Your task to perform on an android device: Go to settings Image 0: 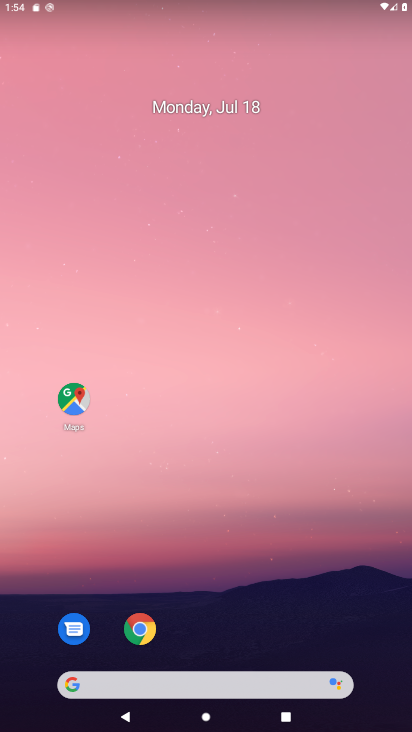
Step 0: drag from (189, 587) to (258, 0)
Your task to perform on an android device: Go to settings Image 1: 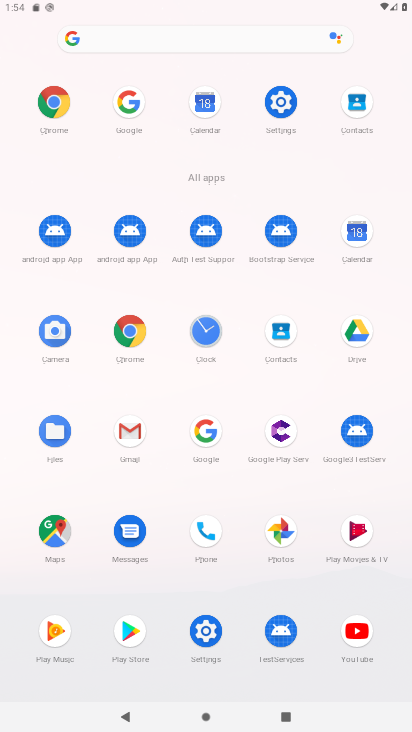
Step 1: click (282, 114)
Your task to perform on an android device: Go to settings Image 2: 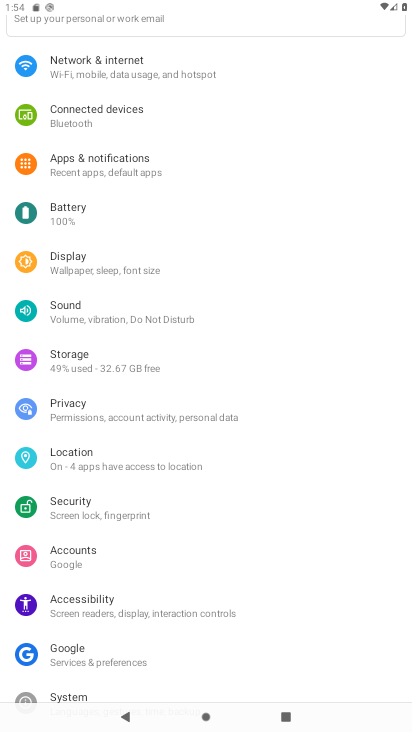
Step 2: task complete